Your task to perform on an android device: Open eBay Image 0: 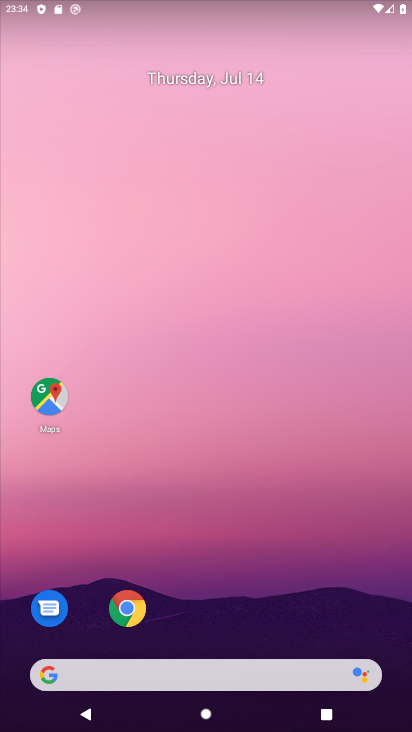
Step 0: click (90, 680)
Your task to perform on an android device: Open eBay Image 1: 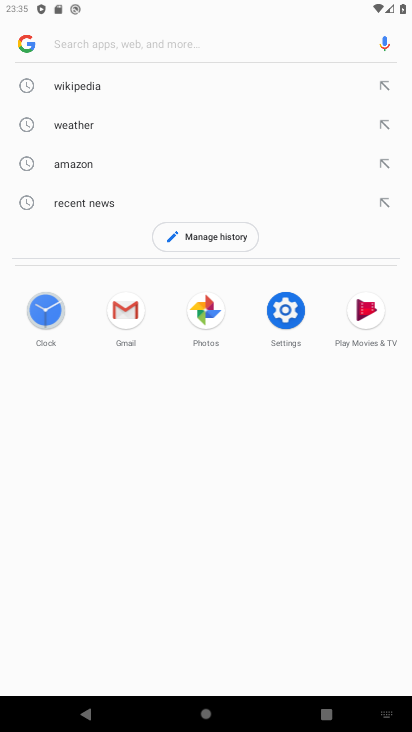
Step 1: click (71, 41)
Your task to perform on an android device: Open eBay Image 2: 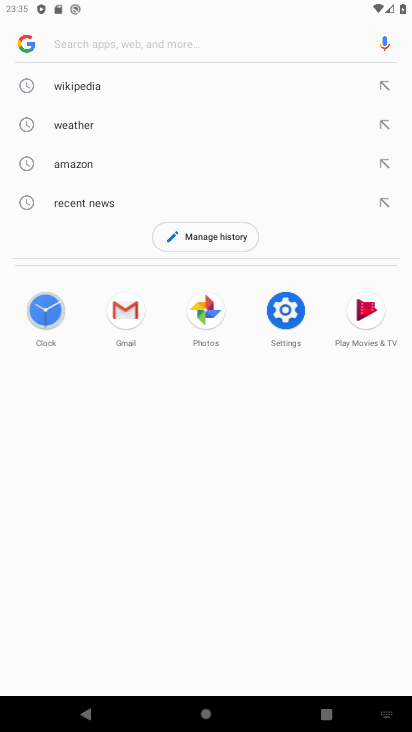
Step 2: type "eBay"
Your task to perform on an android device: Open eBay Image 3: 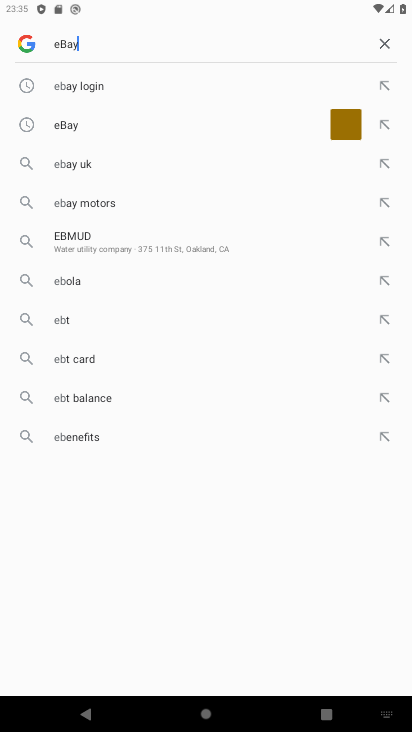
Step 3: type ""
Your task to perform on an android device: Open eBay Image 4: 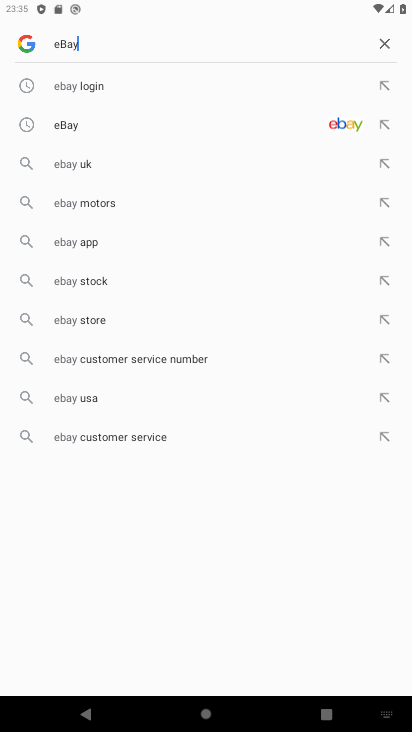
Step 4: click (90, 96)
Your task to perform on an android device: Open eBay Image 5: 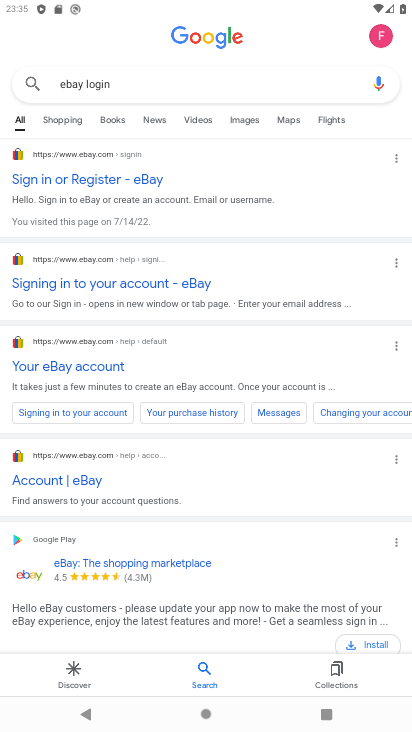
Step 5: task complete